Your task to perform on an android device: Search for Italian restaurants on Maps Image 0: 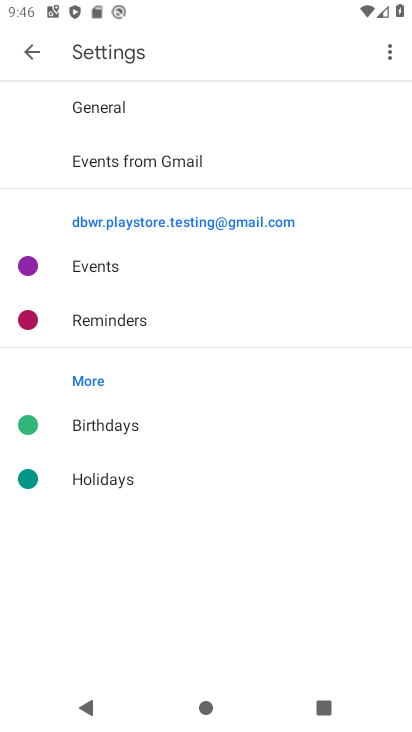
Step 0: press back button
Your task to perform on an android device: Search for Italian restaurants on Maps Image 1: 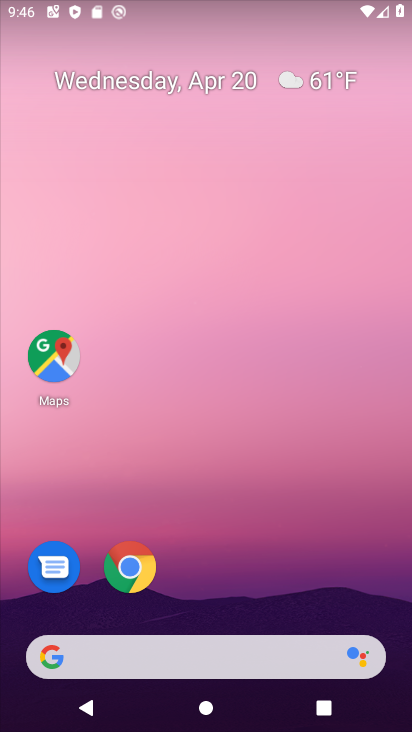
Step 1: click (39, 349)
Your task to perform on an android device: Search for Italian restaurants on Maps Image 2: 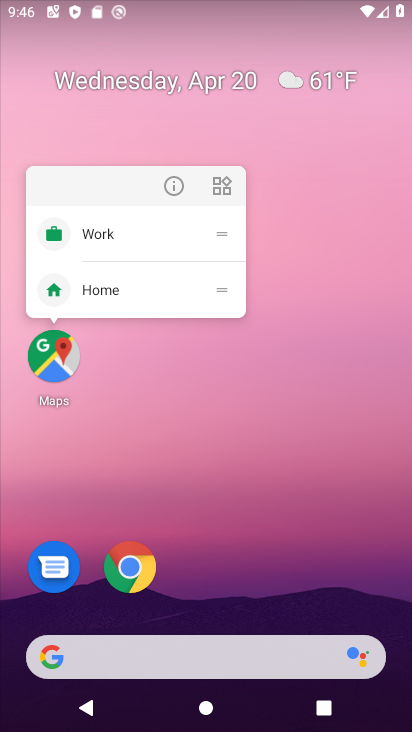
Step 2: click (53, 358)
Your task to perform on an android device: Search for Italian restaurants on Maps Image 3: 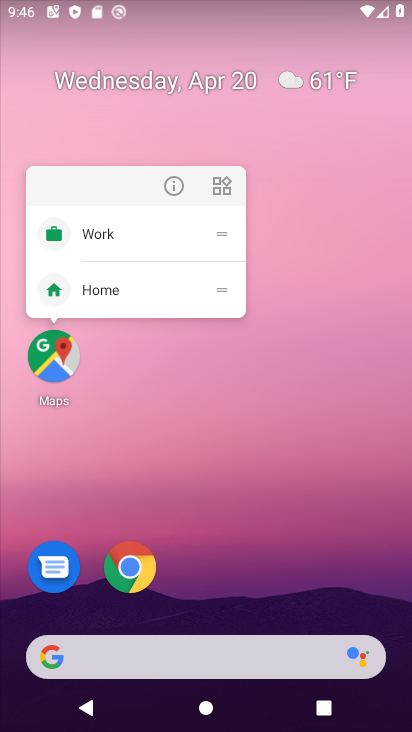
Step 3: click (57, 359)
Your task to perform on an android device: Search for Italian restaurants on Maps Image 4: 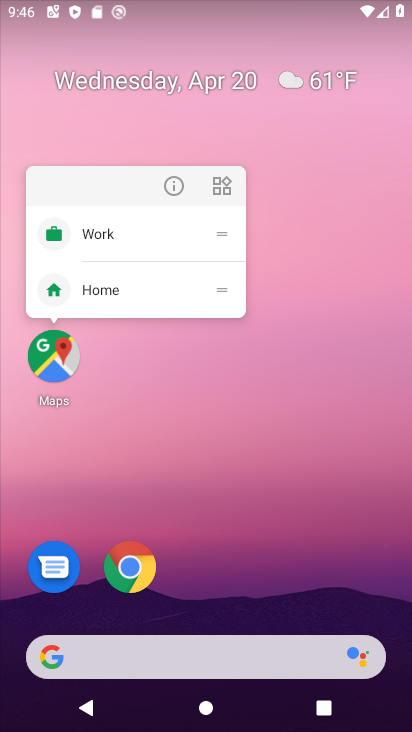
Step 4: click (59, 362)
Your task to perform on an android device: Search for Italian restaurants on Maps Image 5: 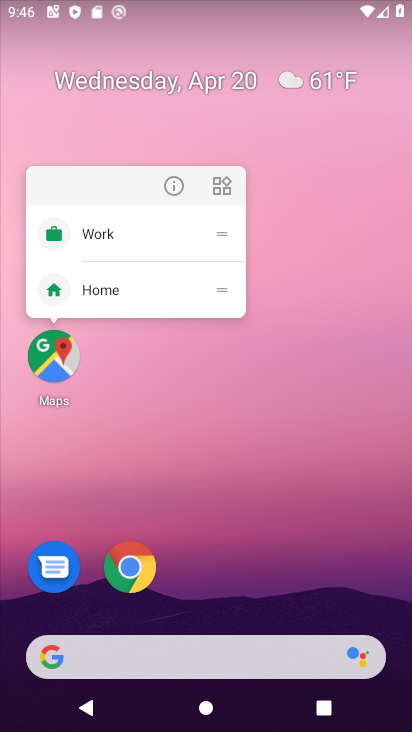
Step 5: click (53, 368)
Your task to perform on an android device: Search for Italian restaurants on Maps Image 6: 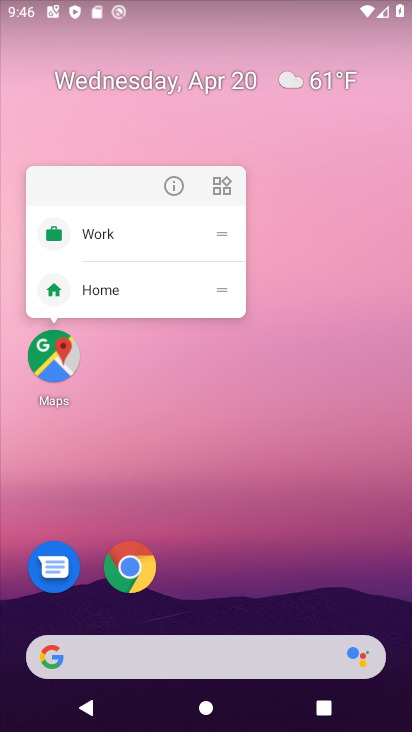
Step 6: click (60, 357)
Your task to perform on an android device: Search for Italian restaurants on Maps Image 7: 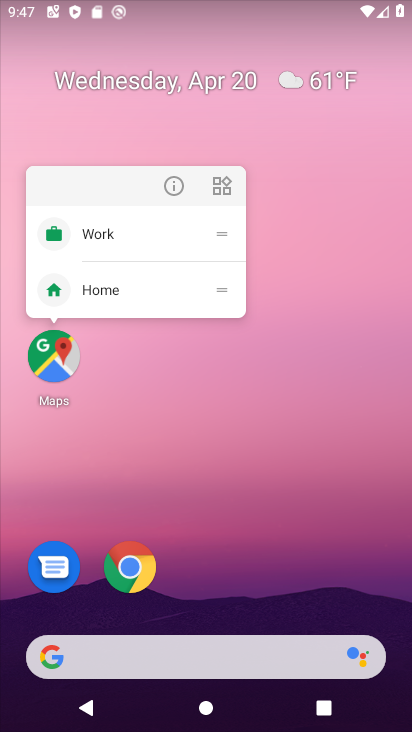
Step 7: click (60, 357)
Your task to perform on an android device: Search for Italian restaurants on Maps Image 8: 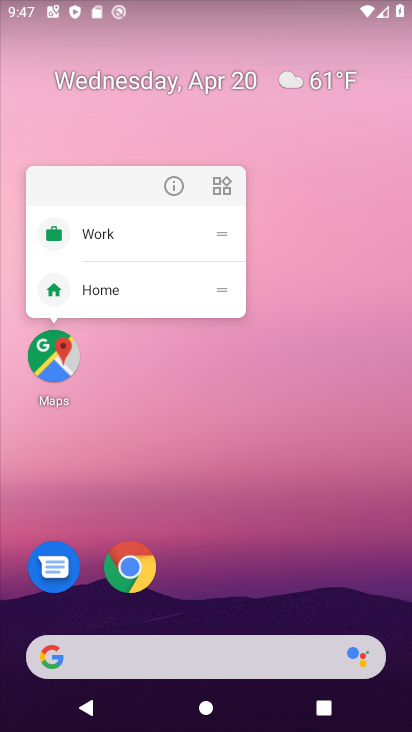
Step 8: click (60, 354)
Your task to perform on an android device: Search for Italian restaurants on Maps Image 9: 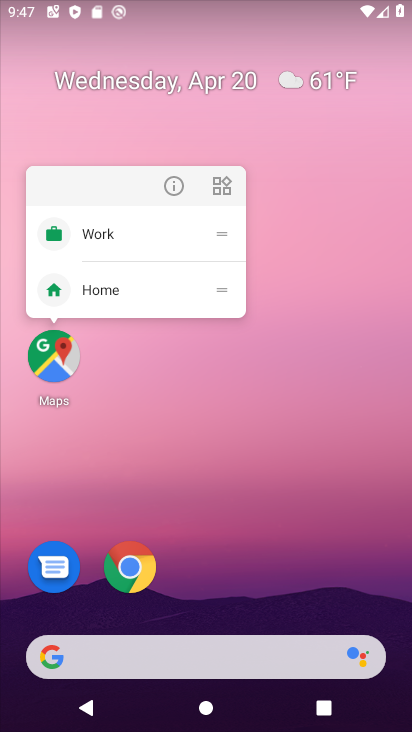
Step 9: click (59, 344)
Your task to perform on an android device: Search for Italian restaurants on Maps Image 10: 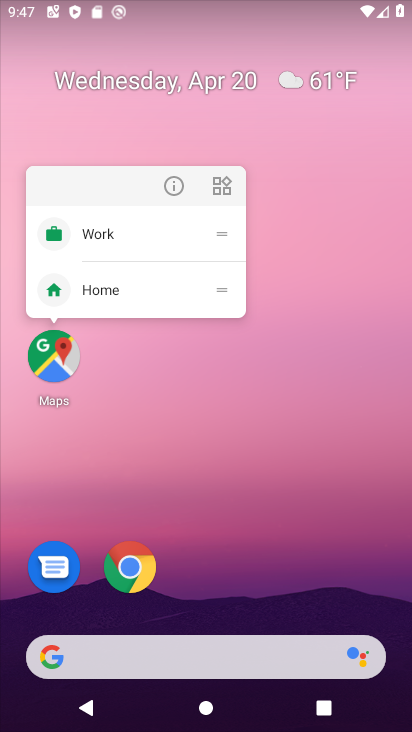
Step 10: click (65, 380)
Your task to perform on an android device: Search for Italian restaurants on Maps Image 11: 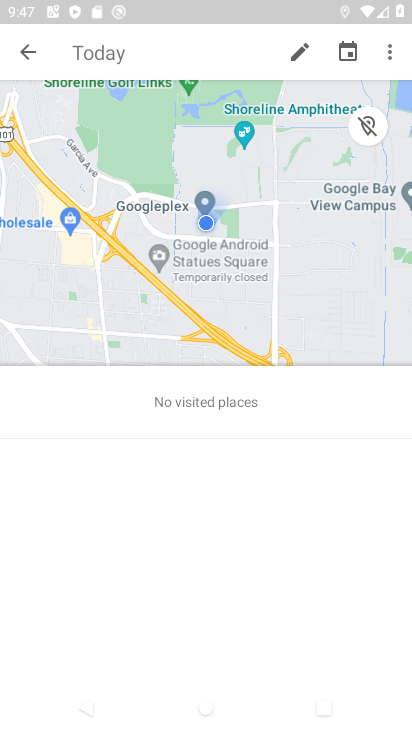
Step 11: click (20, 48)
Your task to perform on an android device: Search for Italian restaurants on Maps Image 12: 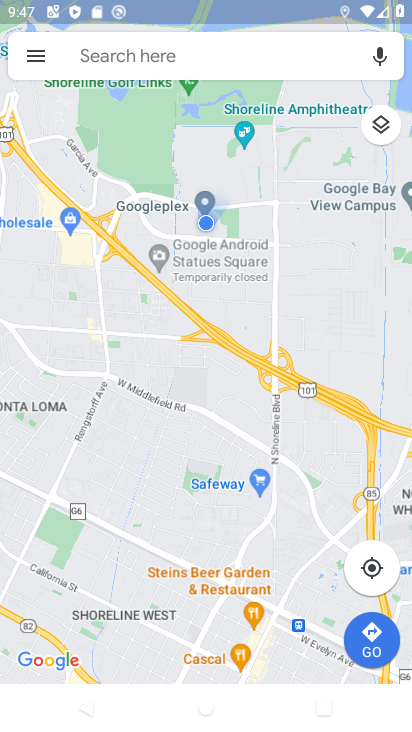
Step 12: click (211, 59)
Your task to perform on an android device: Search for Italian restaurants on Maps Image 13: 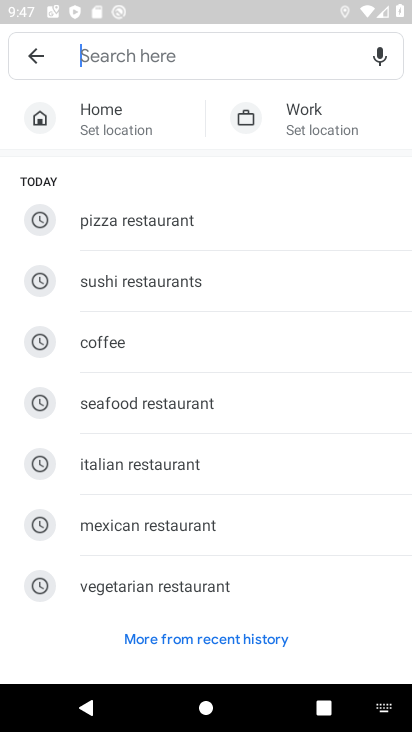
Step 13: click (164, 456)
Your task to perform on an android device: Search for Italian restaurants on Maps Image 14: 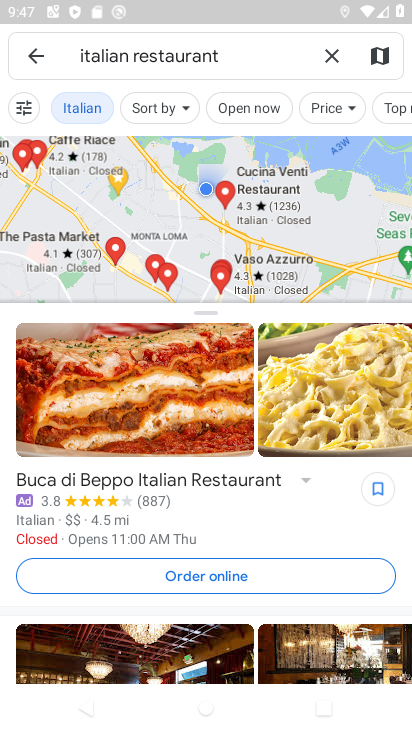
Step 14: task complete